Your task to perform on an android device: turn pop-ups on in chrome Image 0: 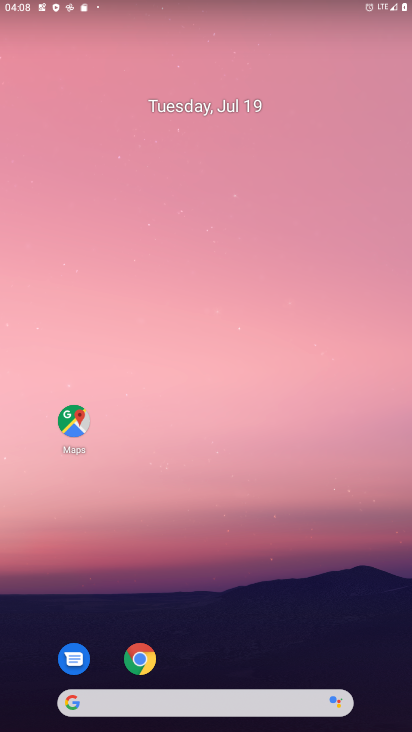
Step 0: click (127, 661)
Your task to perform on an android device: turn pop-ups on in chrome Image 1: 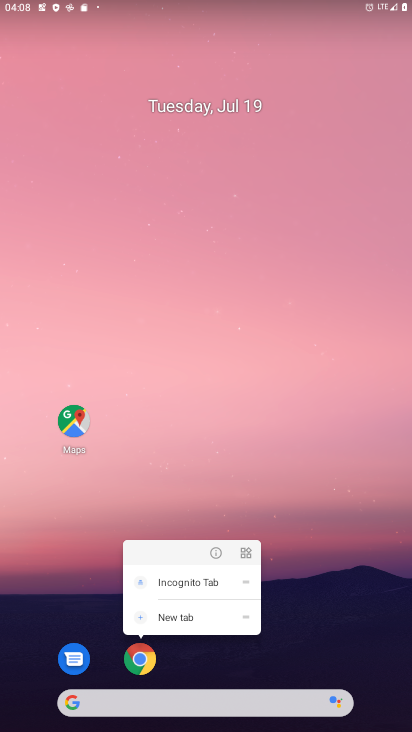
Step 1: click (142, 656)
Your task to perform on an android device: turn pop-ups on in chrome Image 2: 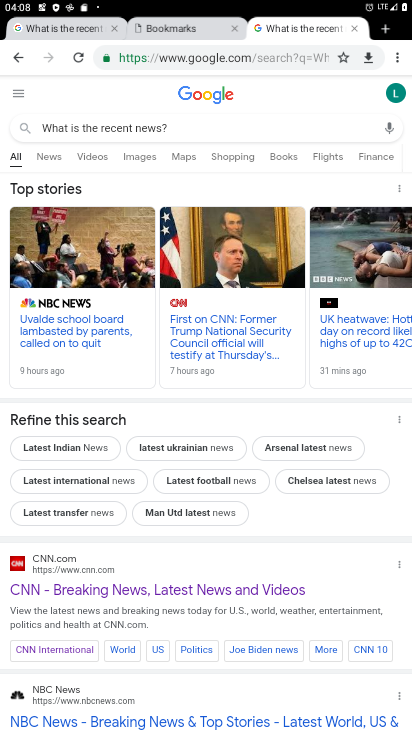
Step 2: drag from (402, 57) to (265, 387)
Your task to perform on an android device: turn pop-ups on in chrome Image 3: 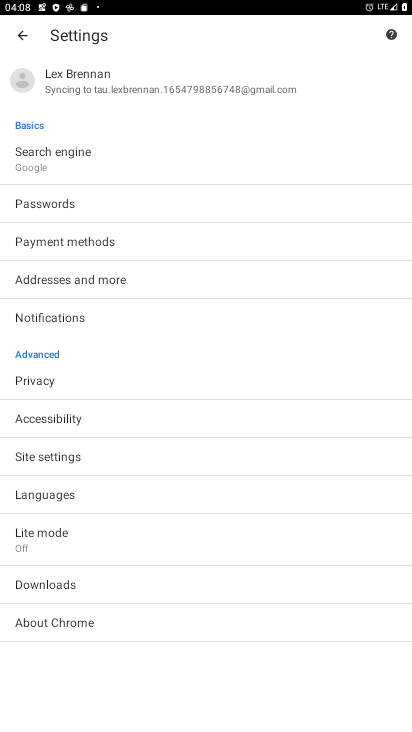
Step 3: click (44, 462)
Your task to perform on an android device: turn pop-ups on in chrome Image 4: 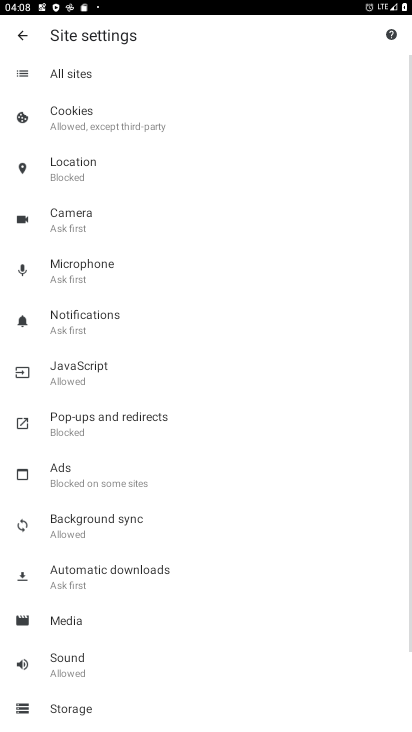
Step 4: click (55, 415)
Your task to perform on an android device: turn pop-ups on in chrome Image 5: 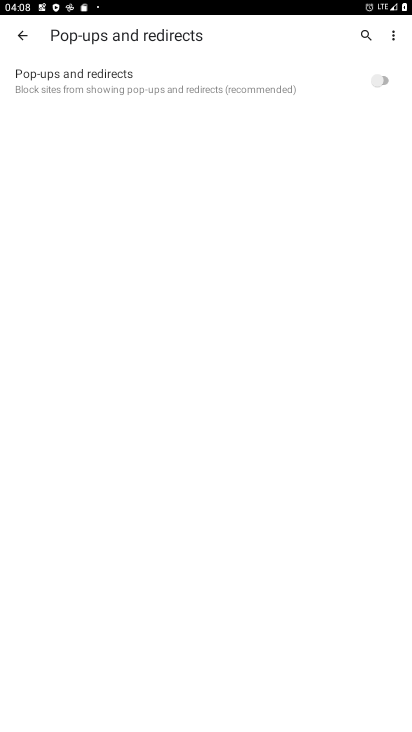
Step 5: click (285, 97)
Your task to perform on an android device: turn pop-ups on in chrome Image 6: 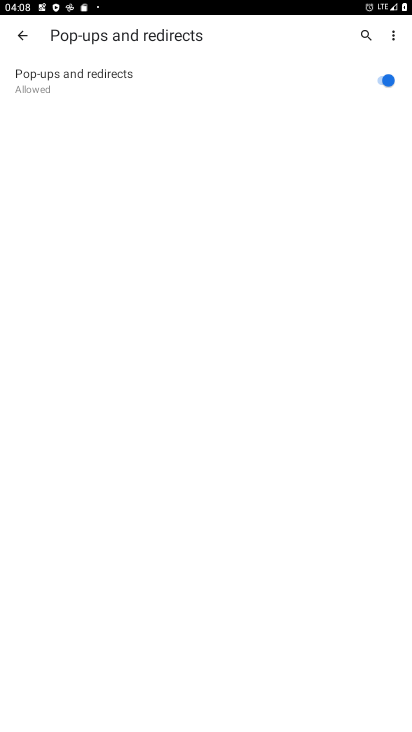
Step 6: task complete